Your task to perform on an android device: Go to display settings Image 0: 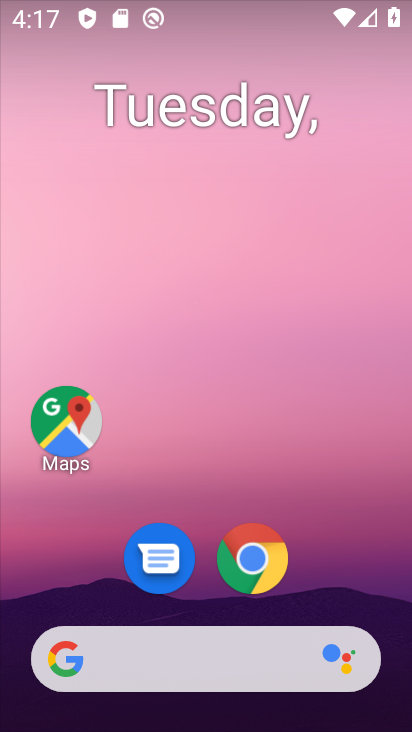
Step 0: drag from (142, 699) to (140, 54)
Your task to perform on an android device: Go to display settings Image 1: 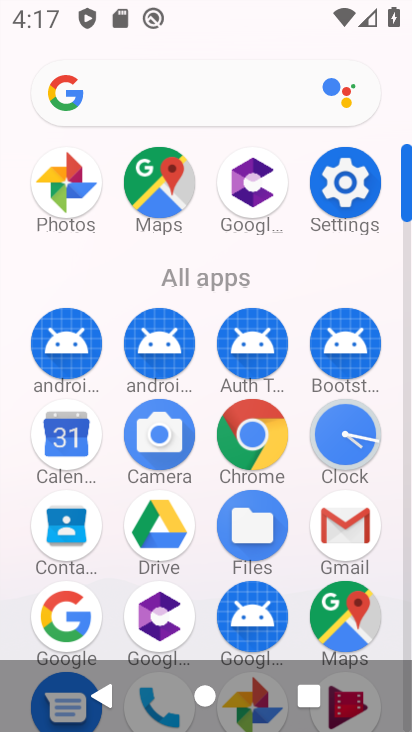
Step 1: click (328, 188)
Your task to perform on an android device: Go to display settings Image 2: 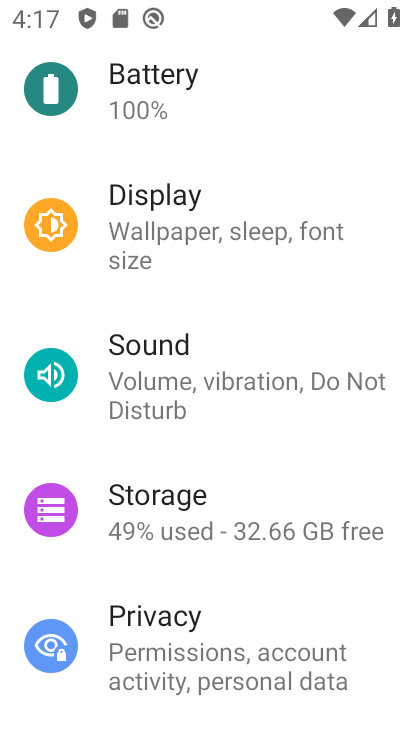
Step 2: drag from (268, 152) to (274, 494)
Your task to perform on an android device: Go to display settings Image 3: 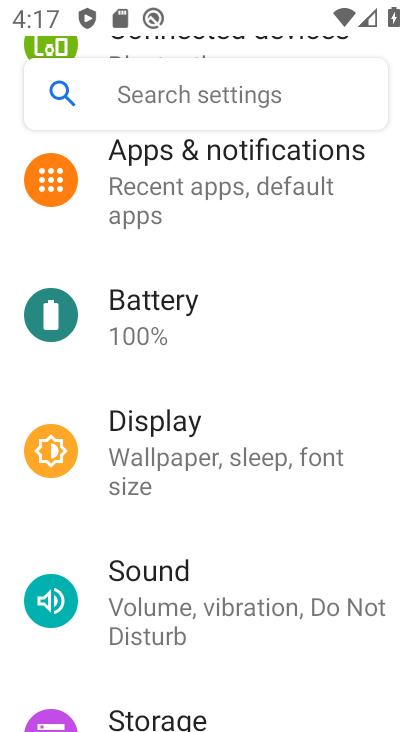
Step 3: click (209, 457)
Your task to perform on an android device: Go to display settings Image 4: 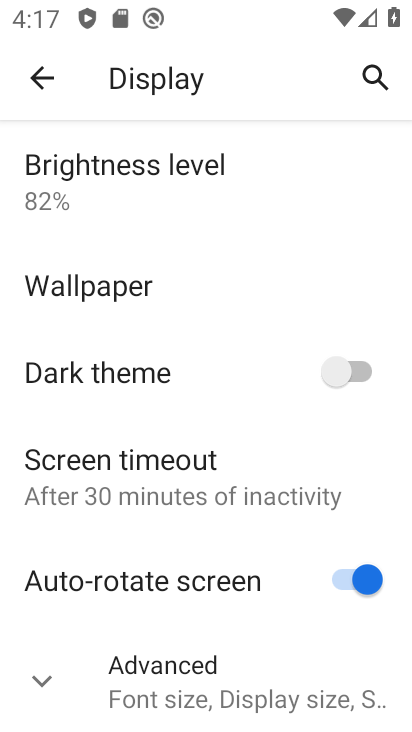
Step 4: task complete